Your task to perform on an android device: Go to Wikipedia Image 0: 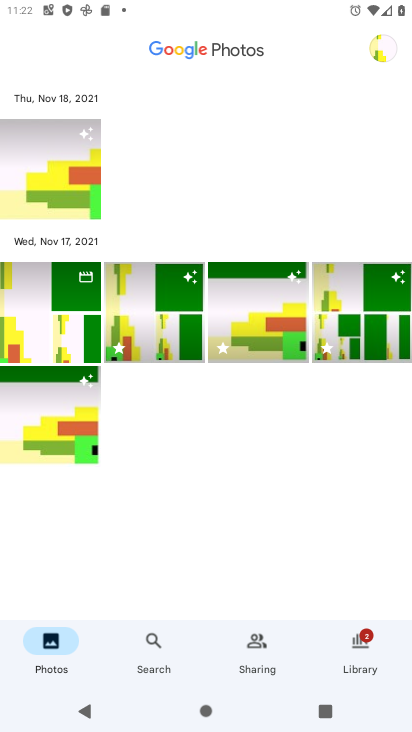
Step 0: press home button
Your task to perform on an android device: Go to Wikipedia Image 1: 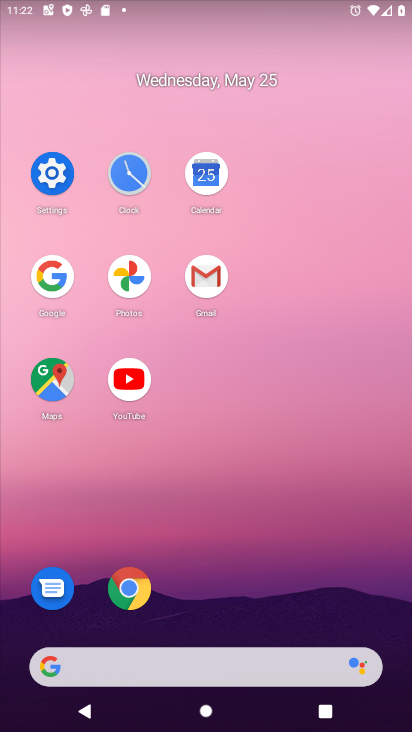
Step 1: click (126, 597)
Your task to perform on an android device: Go to Wikipedia Image 2: 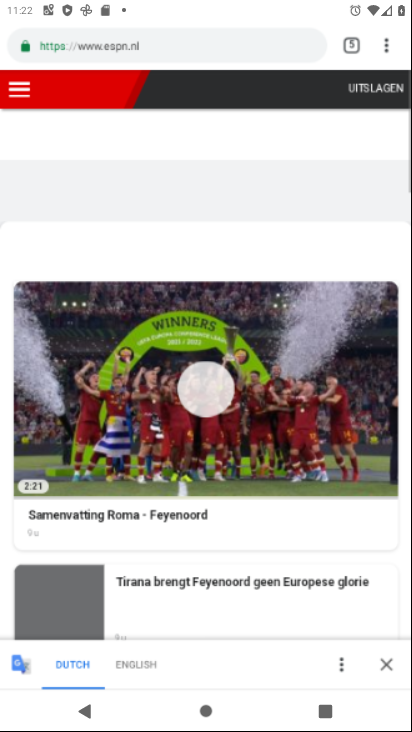
Step 2: click (353, 44)
Your task to perform on an android device: Go to Wikipedia Image 3: 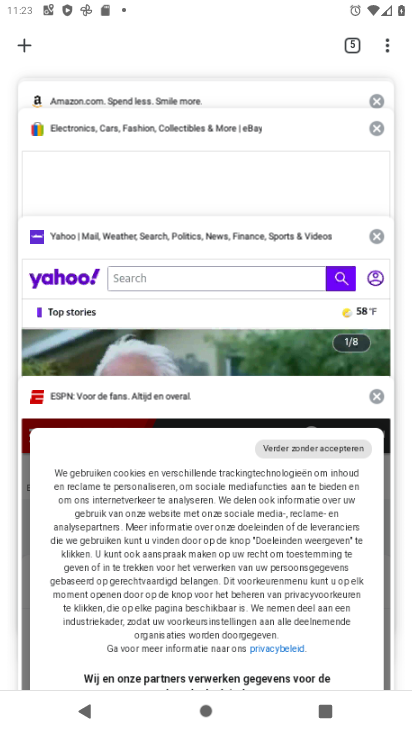
Step 3: drag from (245, 144) to (221, 526)
Your task to perform on an android device: Go to Wikipedia Image 4: 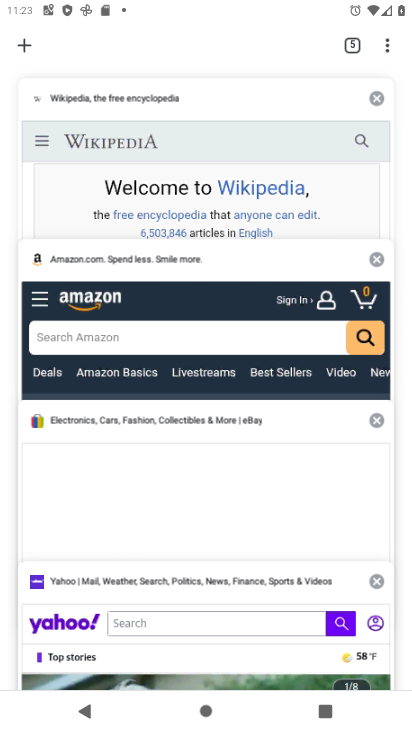
Step 4: click (199, 189)
Your task to perform on an android device: Go to Wikipedia Image 5: 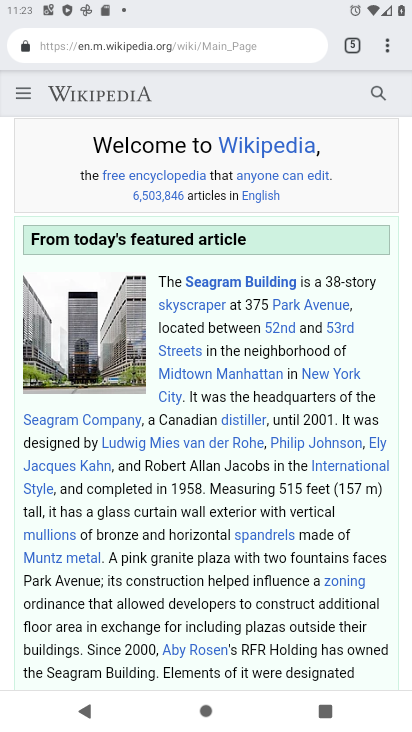
Step 5: task complete